Your task to perform on an android device: change your default location settings in chrome Image 0: 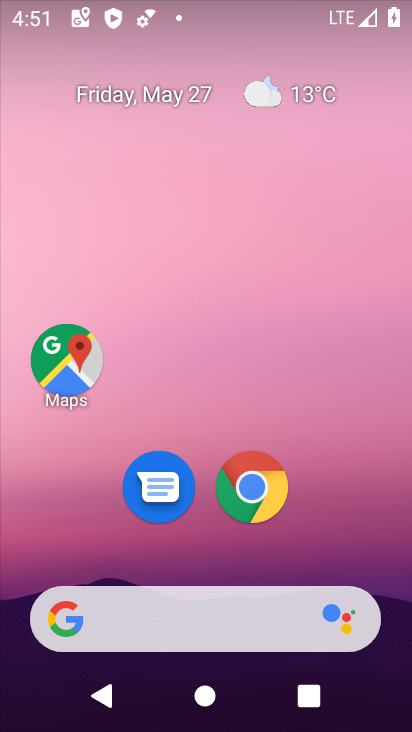
Step 0: click (246, 482)
Your task to perform on an android device: change your default location settings in chrome Image 1: 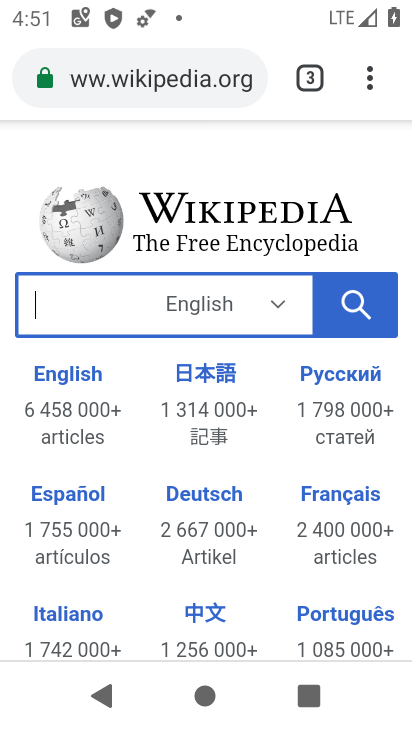
Step 1: click (378, 85)
Your task to perform on an android device: change your default location settings in chrome Image 2: 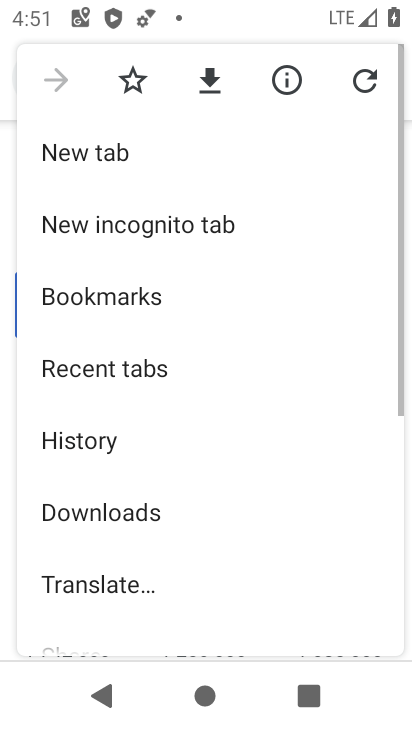
Step 2: drag from (146, 552) to (189, 158)
Your task to perform on an android device: change your default location settings in chrome Image 3: 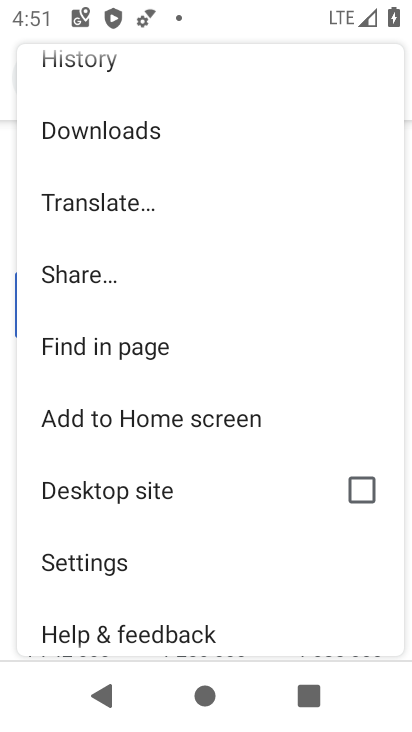
Step 3: click (123, 569)
Your task to perform on an android device: change your default location settings in chrome Image 4: 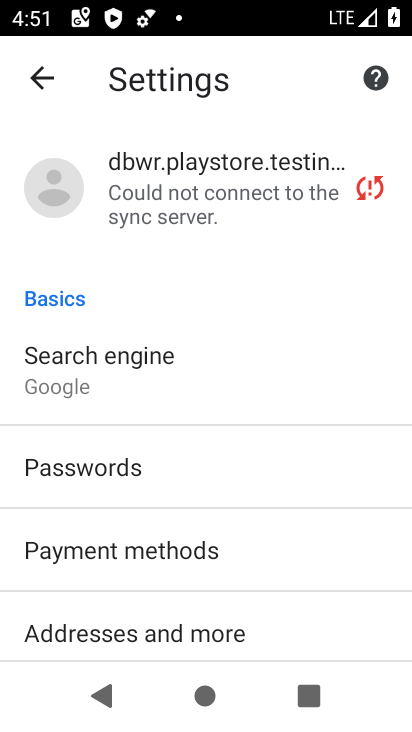
Step 4: drag from (146, 531) to (208, 251)
Your task to perform on an android device: change your default location settings in chrome Image 5: 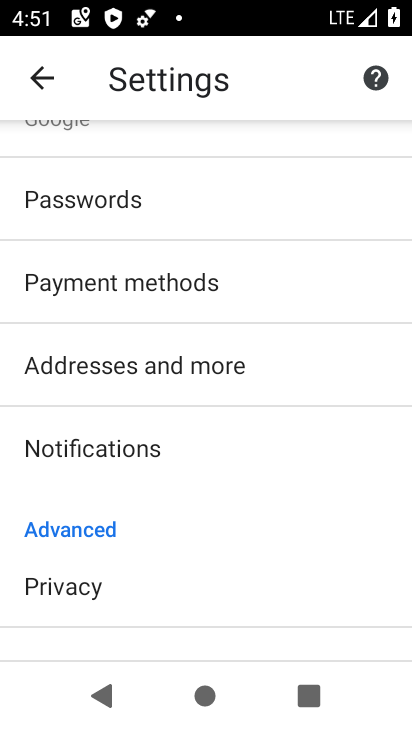
Step 5: drag from (206, 231) to (213, 510)
Your task to perform on an android device: change your default location settings in chrome Image 6: 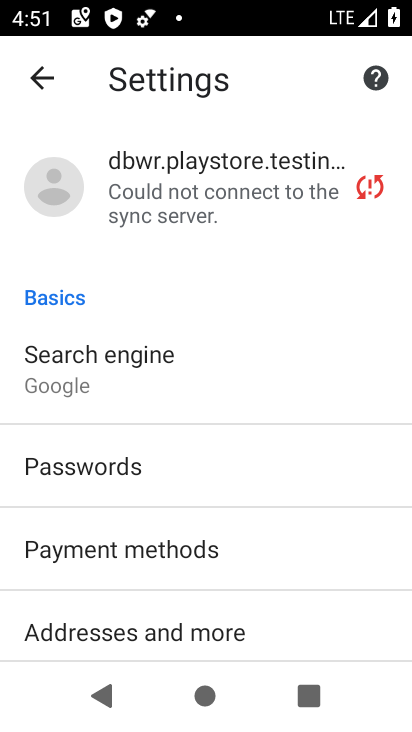
Step 6: drag from (192, 509) to (264, 102)
Your task to perform on an android device: change your default location settings in chrome Image 7: 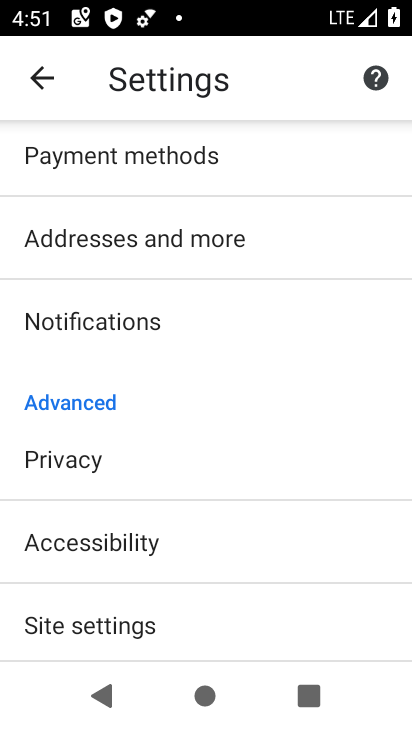
Step 7: drag from (193, 418) to (293, 135)
Your task to perform on an android device: change your default location settings in chrome Image 8: 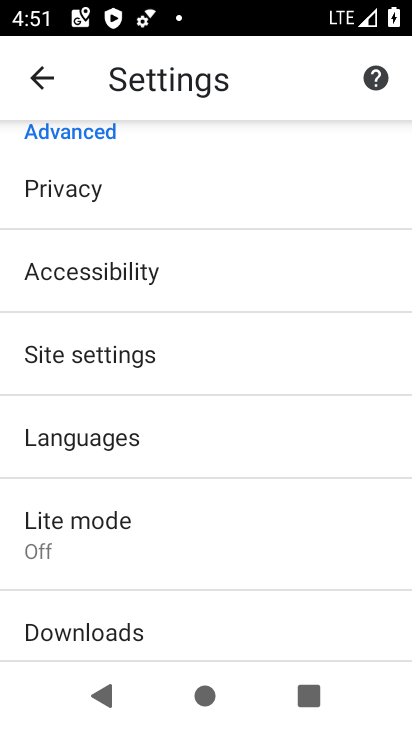
Step 8: drag from (140, 552) to (273, 235)
Your task to perform on an android device: change your default location settings in chrome Image 9: 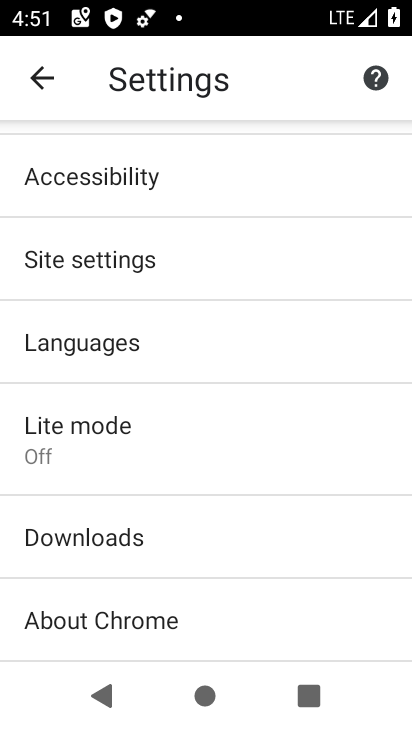
Step 9: click (154, 279)
Your task to perform on an android device: change your default location settings in chrome Image 10: 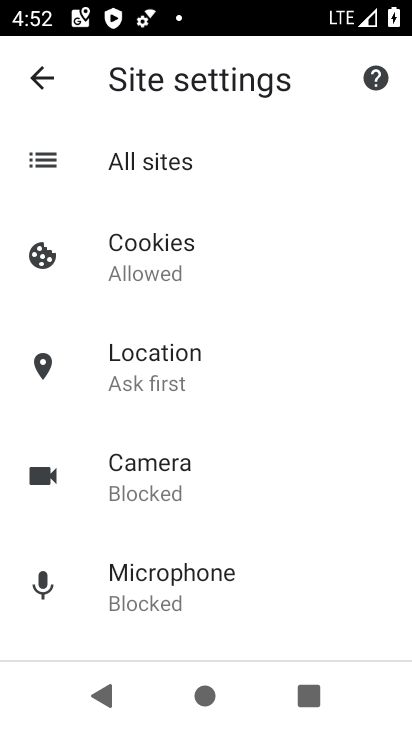
Step 10: click (169, 372)
Your task to perform on an android device: change your default location settings in chrome Image 11: 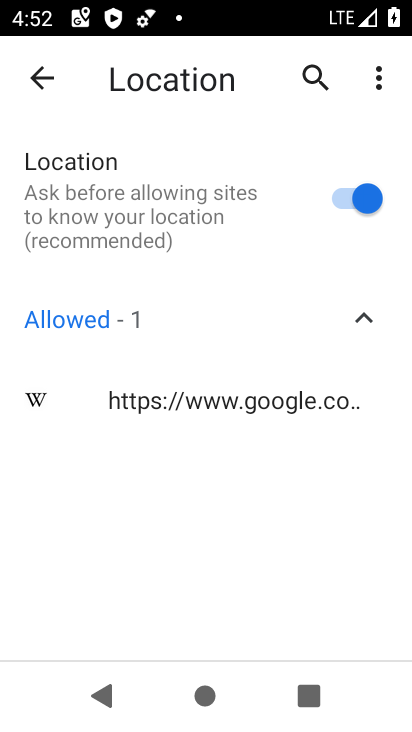
Step 11: click (345, 195)
Your task to perform on an android device: change your default location settings in chrome Image 12: 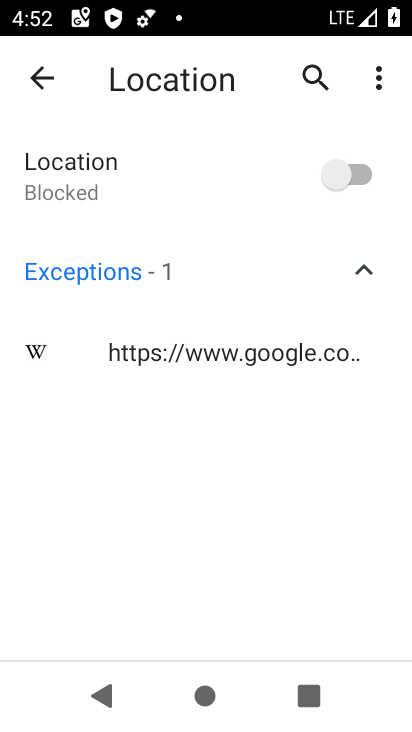
Step 12: task complete